Your task to perform on an android device: What's the weather going to be this weekend? Image 0: 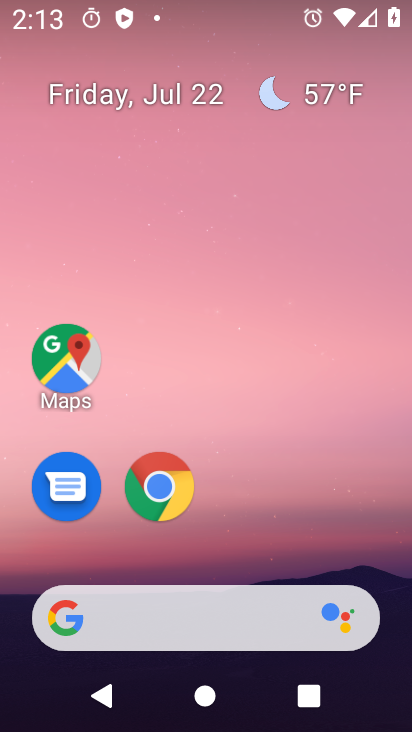
Step 0: press home button
Your task to perform on an android device: What's the weather going to be this weekend? Image 1: 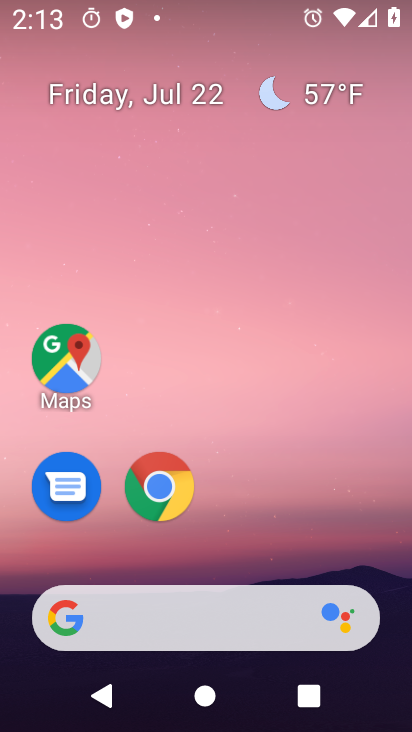
Step 1: click (271, 613)
Your task to perform on an android device: What's the weather going to be this weekend? Image 2: 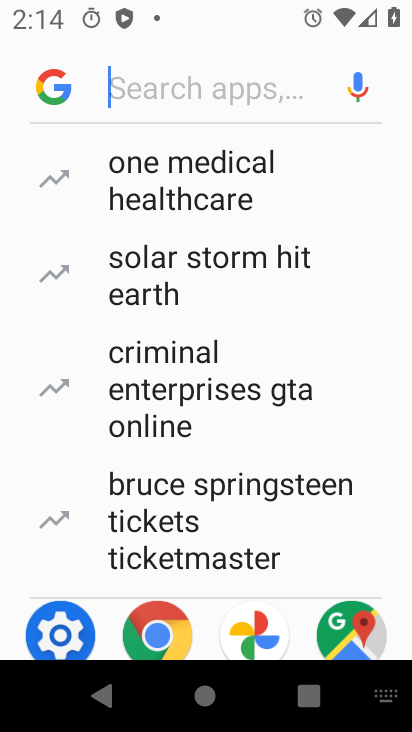
Step 2: type "weather"
Your task to perform on an android device: What's the weather going to be this weekend? Image 3: 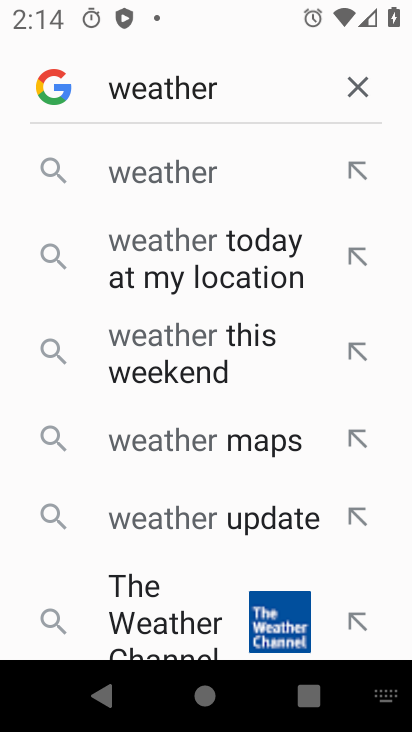
Step 3: click (206, 180)
Your task to perform on an android device: What's the weather going to be this weekend? Image 4: 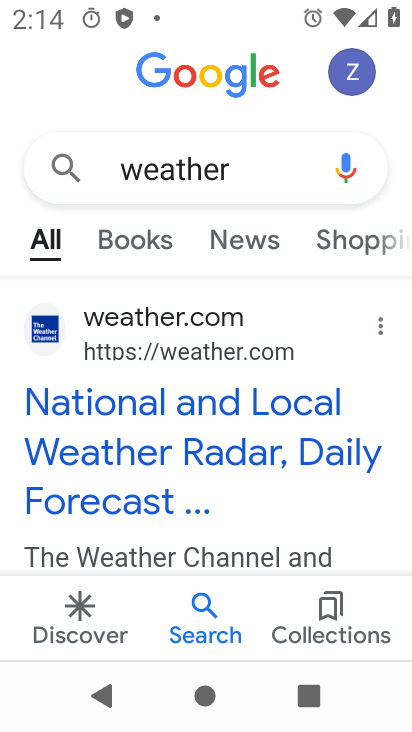
Step 4: task complete